Your task to perform on an android device: Open Google Chrome Image 0: 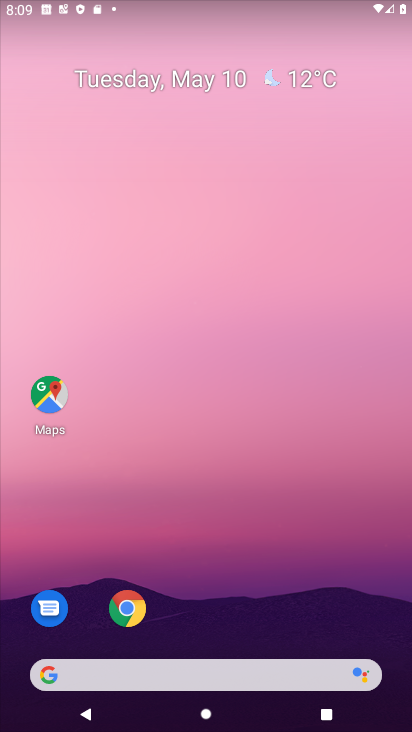
Step 0: drag from (155, 668) to (331, 71)
Your task to perform on an android device: Open Google Chrome Image 1: 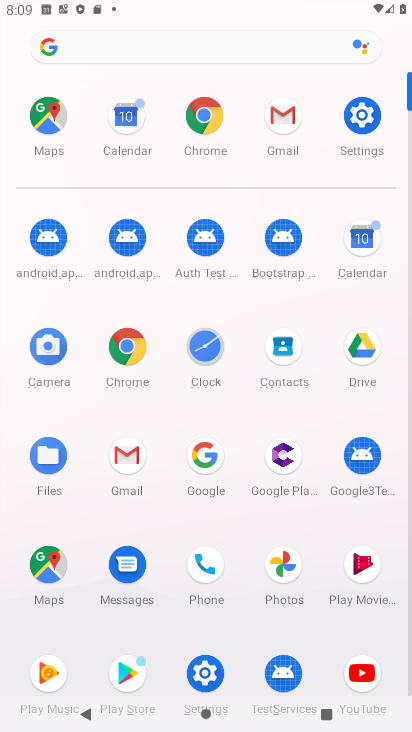
Step 1: click (206, 129)
Your task to perform on an android device: Open Google Chrome Image 2: 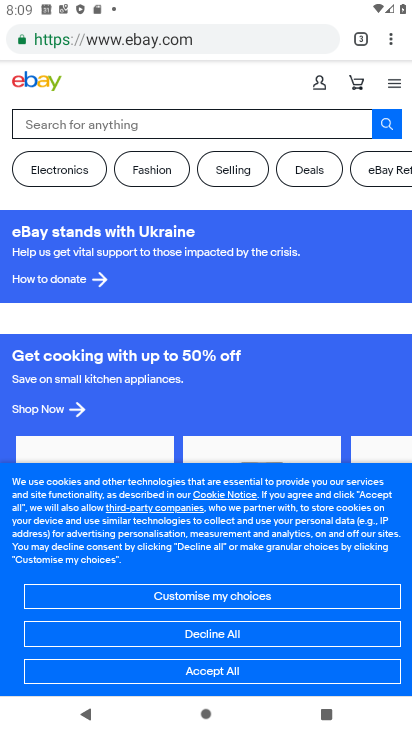
Step 2: task complete